Your task to perform on an android device: Go to network settings Image 0: 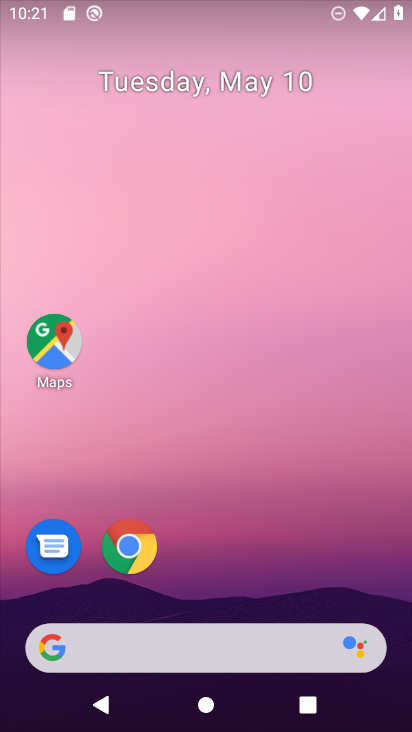
Step 0: drag from (291, 571) to (269, 44)
Your task to perform on an android device: Go to network settings Image 1: 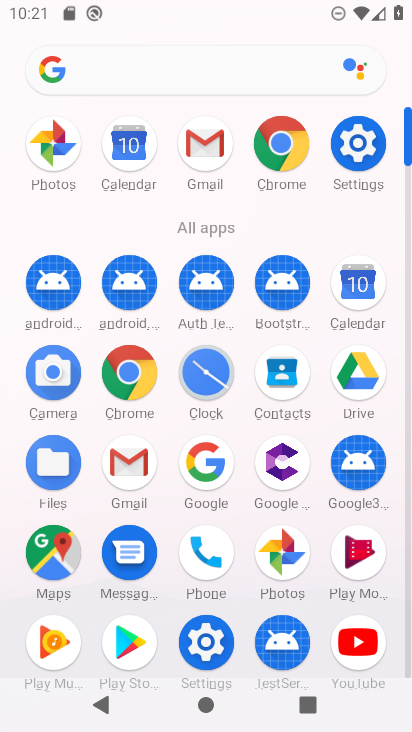
Step 1: click (367, 139)
Your task to perform on an android device: Go to network settings Image 2: 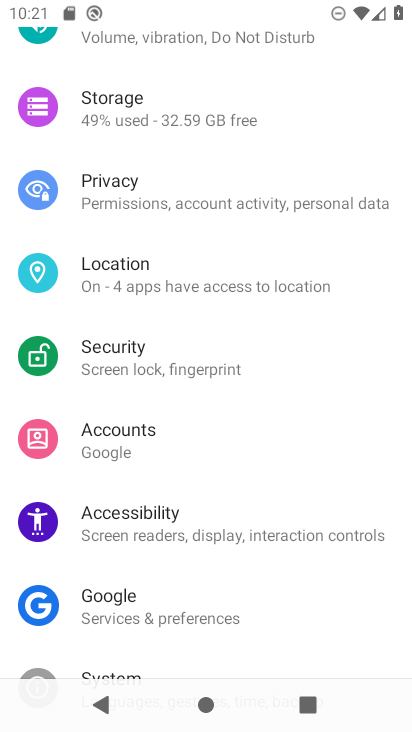
Step 2: drag from (184, 66) to (161, 595)
Your task to perform on an android device: Go to network settings Image 3: 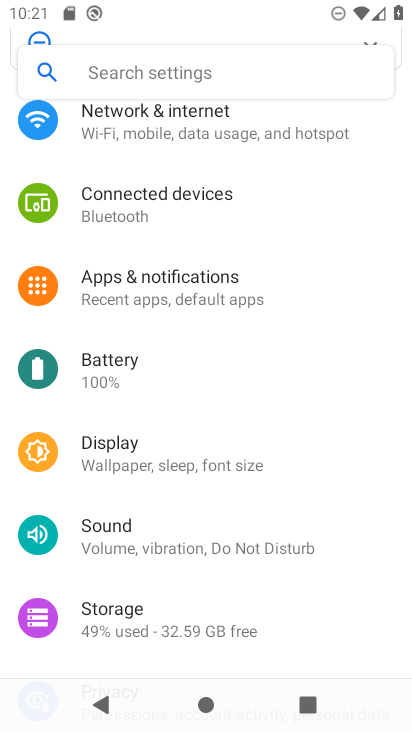
Step 3: click (217, 122)
Your task to perform on an android device: Go to network settings Image 4: 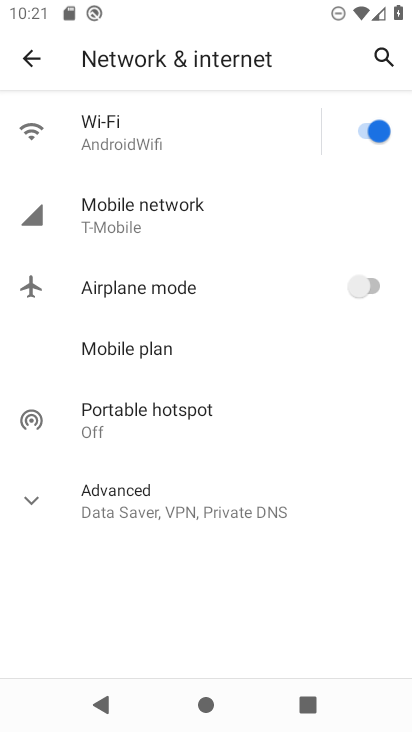
Step 4: task complete